Your task to perform on an android device: Open Youtube and go to the subscriptions tab Image 0: 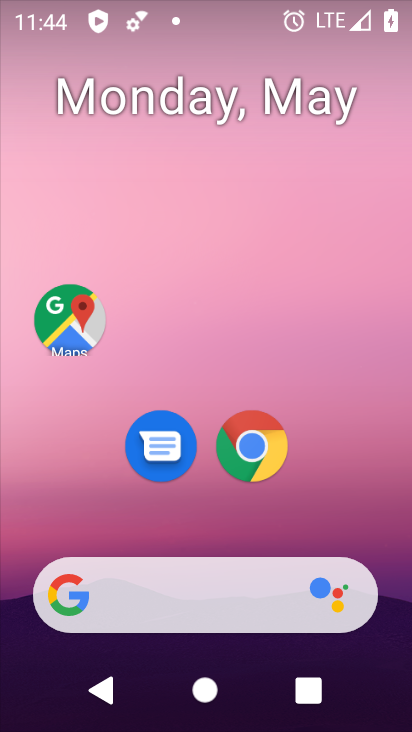
Step 0: drag from (349, 490) to (249, 62)
Your task to perform on an android device: Open Youtube and go to the subscriptions tab Image 1: 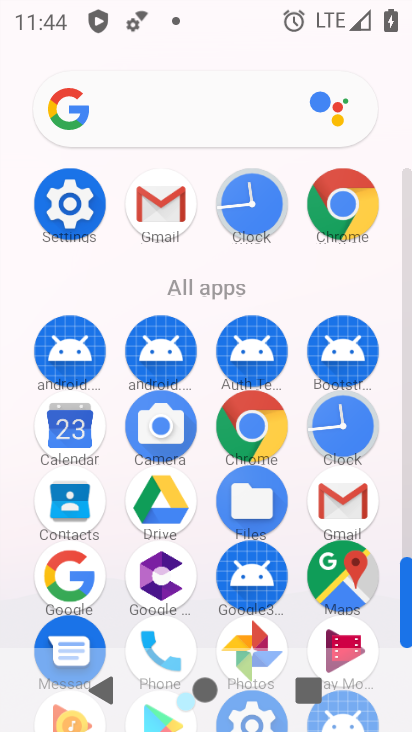
Step 1: drag from (205, 628) to (199, 259)
Your task to perform on an android device: Open Youtube and go to the subscriptions tab Image 2: 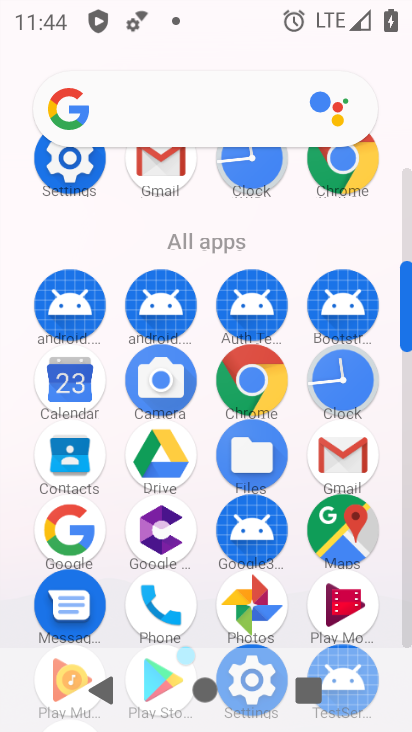
Step 2: drag from (204, 564) to (192, 264)
Your task to perform on an android device: Open Youtube and go to the subscriptions tab Image 3: 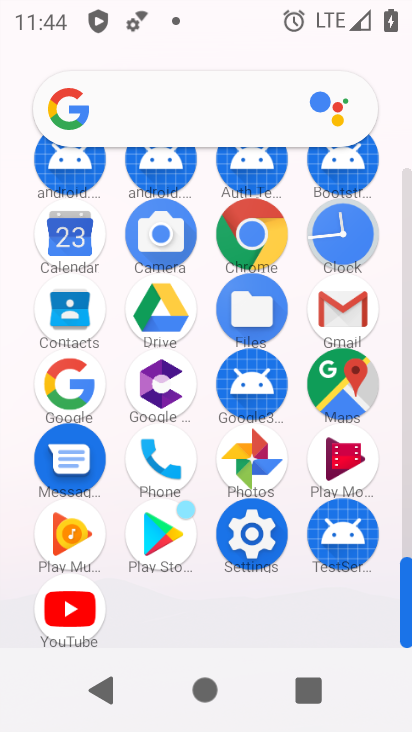
Step 3: click (71, 603)
Your task to perform on an android device: Open Youtube and go to the subscriptions tab Image 4: 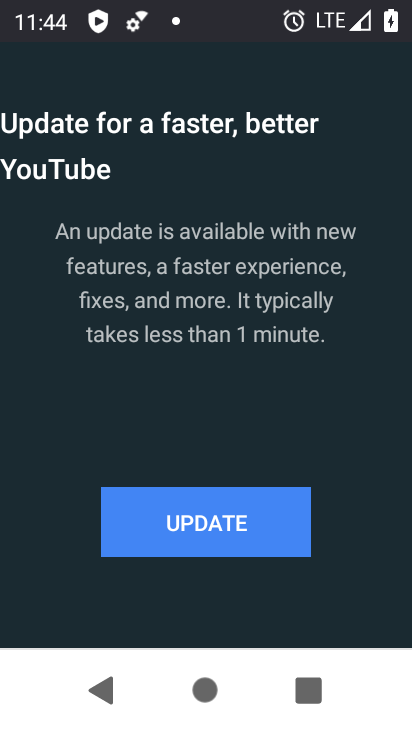
Step 4: click (188, 525)
Your task to perform on an android device: Open Youtube and go to the subscriptions tab Image 5: 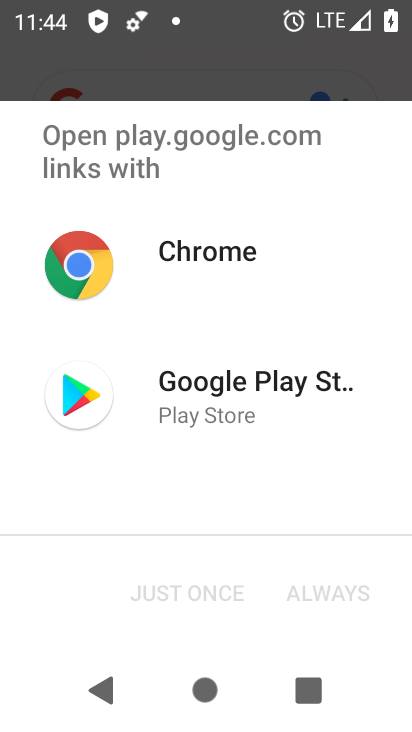
Step 5: click (192, 391)
Your task to perform on an android device: Open Youtube and go to the subscriptions tab Image 6: 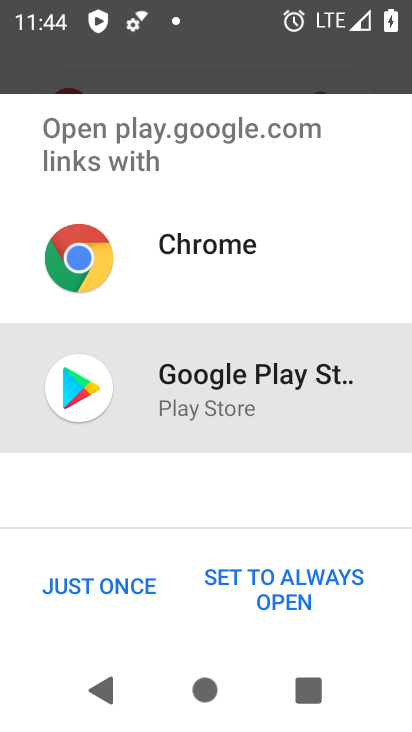
Step 6: click (111, 578)
Your task to perform on an android device: Open Youtube and go to the subscriptions tab Image 7: 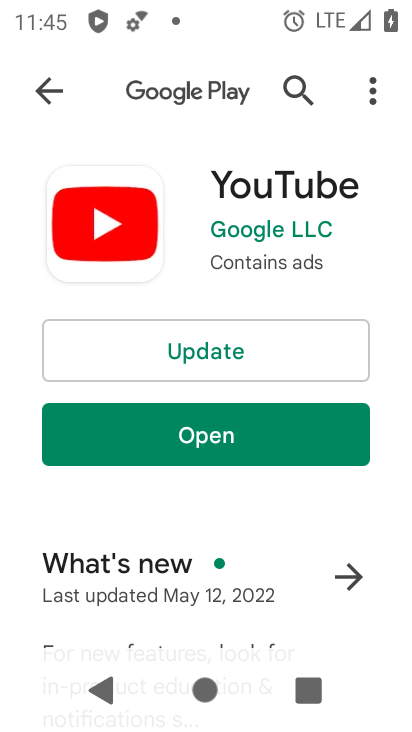
Step 7: click (199, 345)
Your task to perform on an android device: Open Youtube and go to the subscriptions tab Image 8: 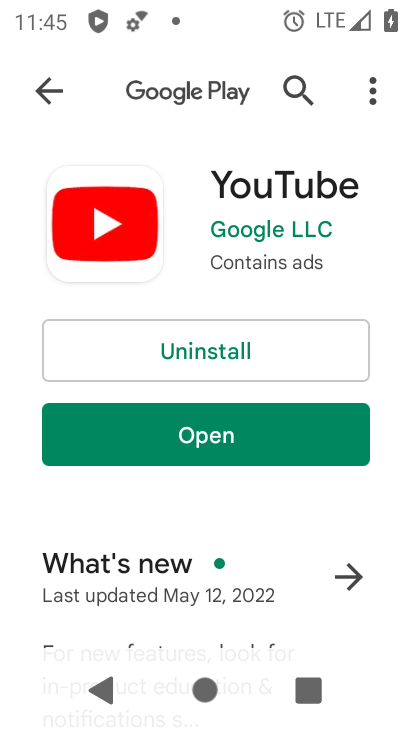
Step 8: click (207, 444)
Your task to perform on an android device: Open Youtube and go to the subscriptions tab Image 9: 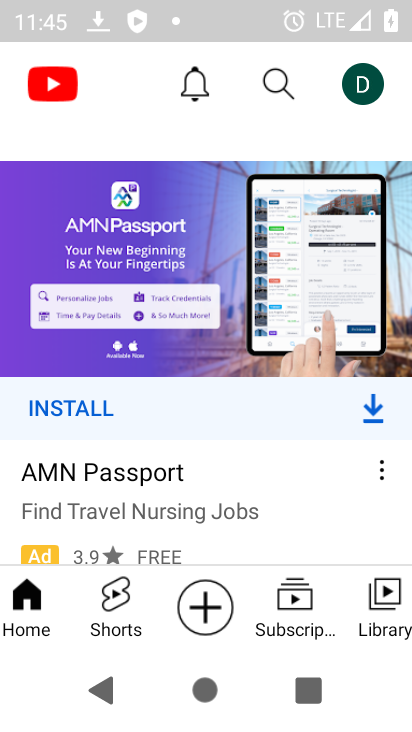
Step 9: click (292, 604)
Your task to perform on an android device: Open Youtube and go to the subscriptions tab Image 10: 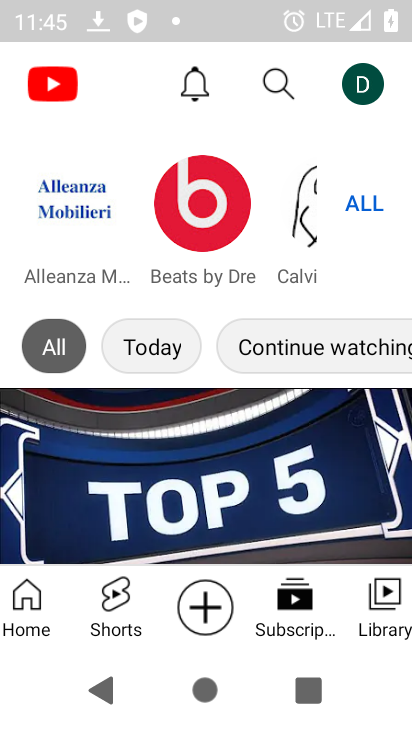
Step 10: task complete